Your task to perform on an android device: Open accessibility settings Image 0: 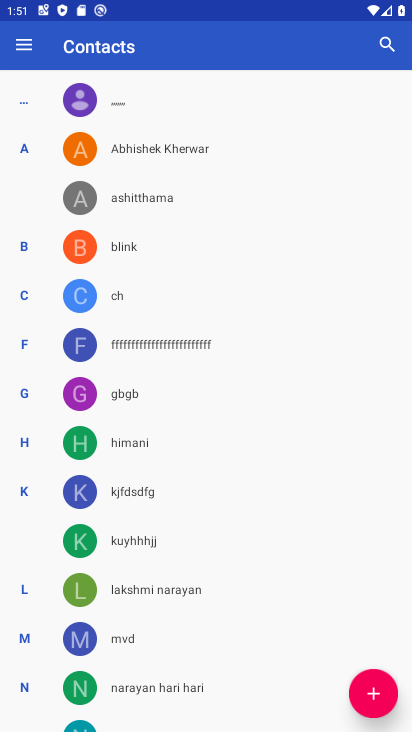
Step 0: press home button
Your task to perform on an android device: Open accessibility settings Image 1: 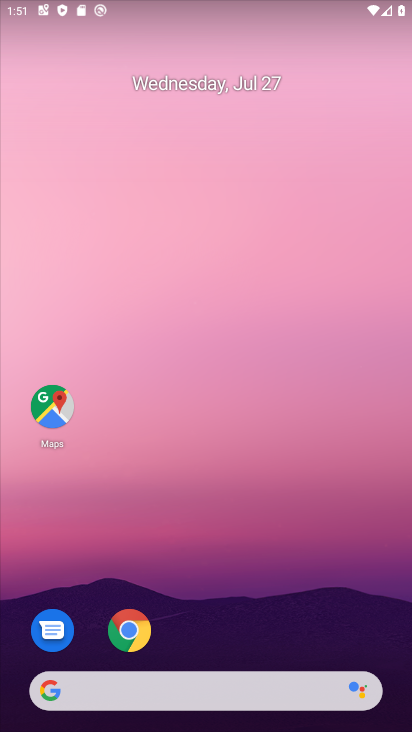
Step 1: drag from (378, 634) to (349, 105)
Your task to perform on an android device: Open accessibility settings Image 2: 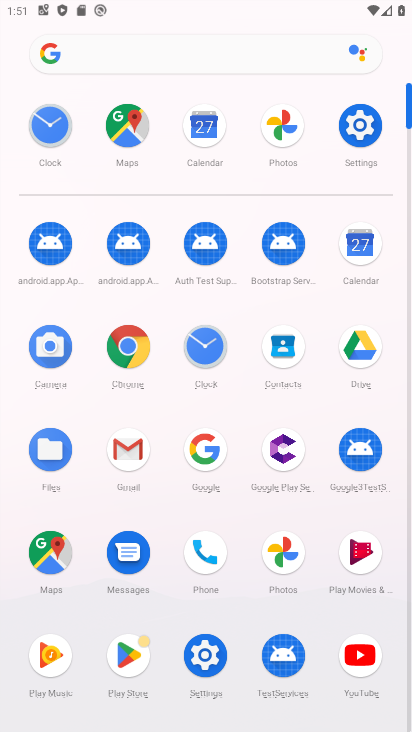
Step 2: click (205, 656)
Your task to perform on an android device: Open accessibility settings Image 3: 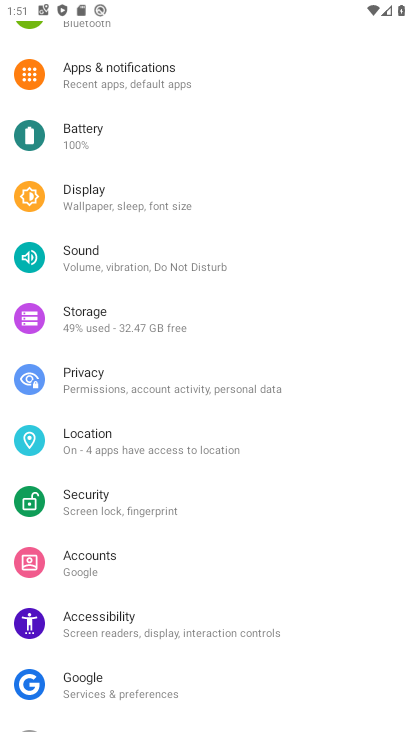
Step 3: drag from (285, 677) to (283, 333)
Your task to perform on an android device: Open accessibility settings Image 4: 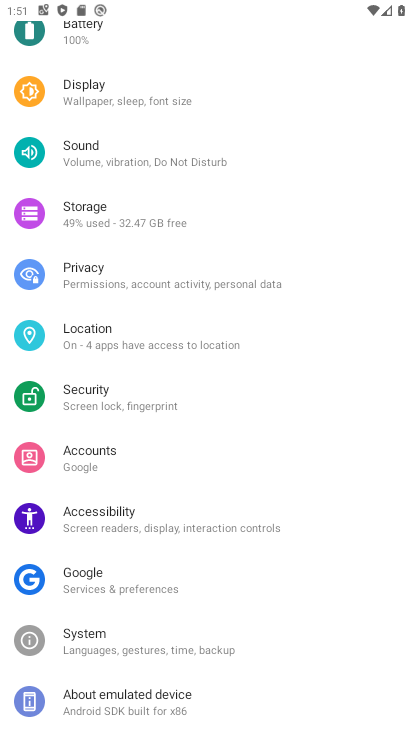
Step 4: click (91, 513)
Your task to perform on an android device: Open accessibility settings Image 5: 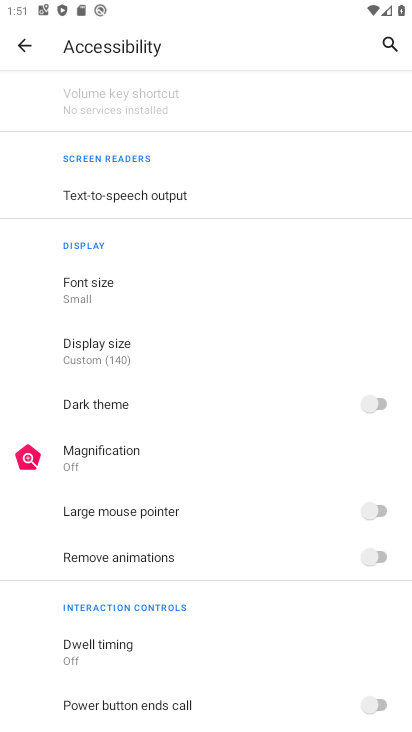
Step 5: task complete